Your task to perform on an android device: turn off priority inbox in the gmail app Image 0: 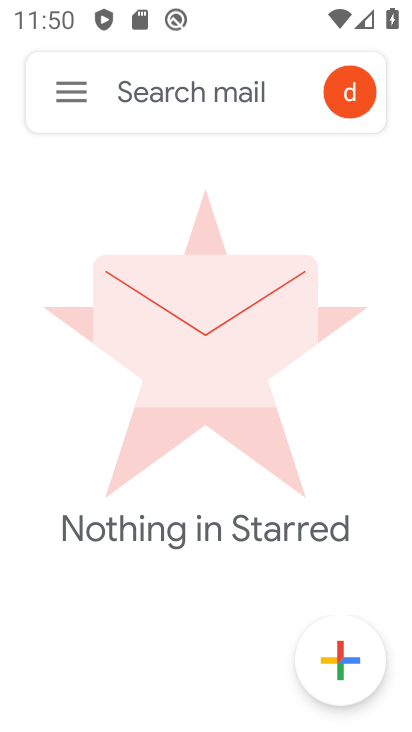
Step 0: press home button
Your task to perform on an android device: turn off priority inbox in the gmail app Image 1: 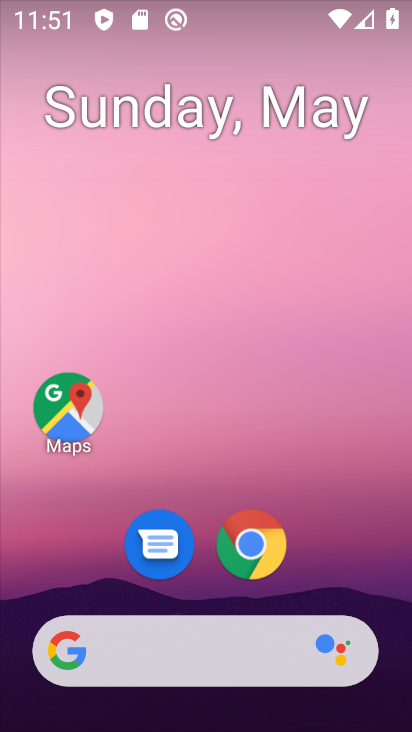
Step 1: drag from (290, 567) to (270, 35)
Your task to perform on an android device: turn off priority inbox in the gmail app Image 2: 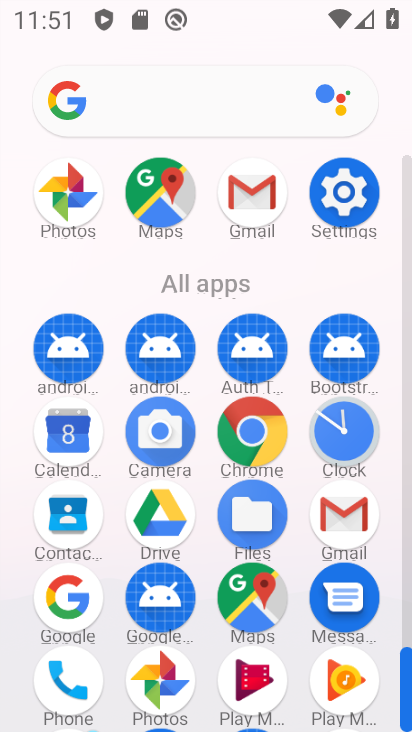
Step 2: click (328, 524)
Your task to perform on an android device: turn off priority inbox in the gmail app Image 3: 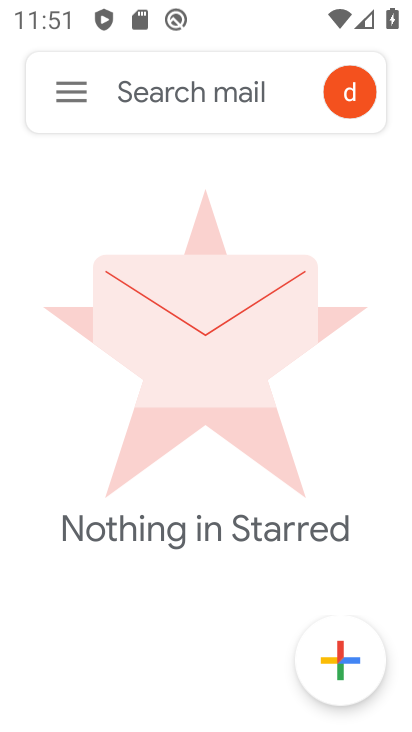
Step 3: click (66, 87)
Your task to perform on an android device: turn off priority inbox in the gmail app Image 4: 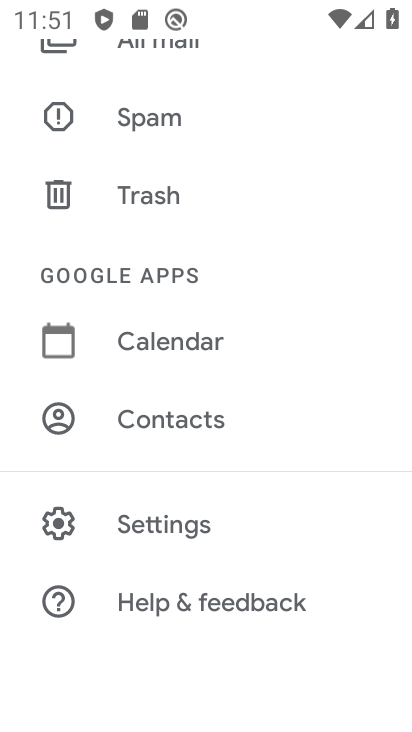
Step 4: drag from (83, 573) to (90, 328)
Your task to perform on an android device: turn off priority inbox in the gmail app Image 5: 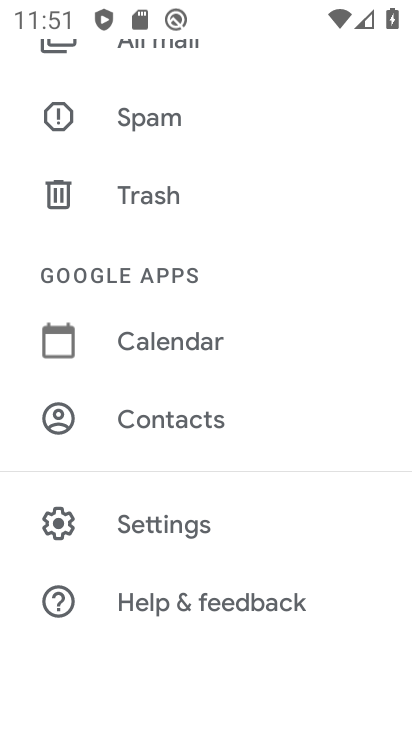
Step 5: click (206, 524)
Your task to perform on an android device: turn off priority inbox in the gmail app Image 6: 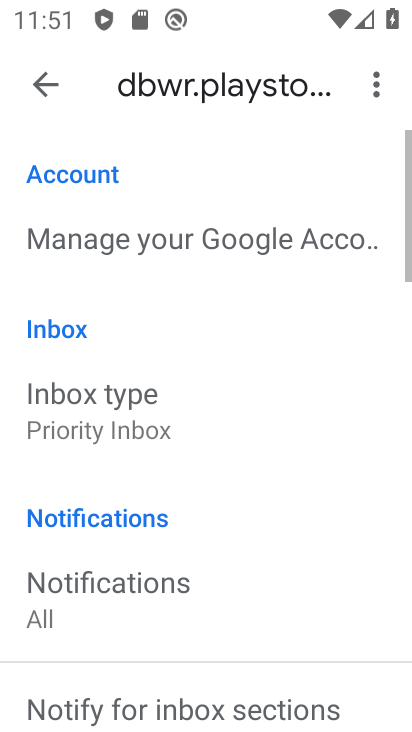
Step 6: click (98, 420)
Your task to perform on an android device: turn off priority inbox in the gmail app Image 7: 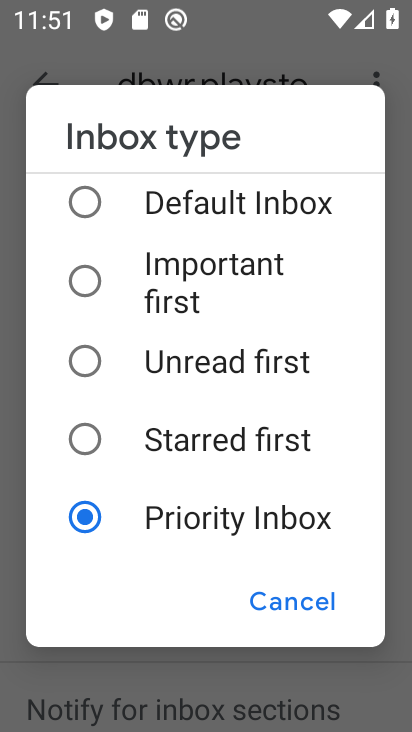
Step 7: click (86, 366)
Your task to perform on an android device: turn off priority inbox in the gmail app Image 8: 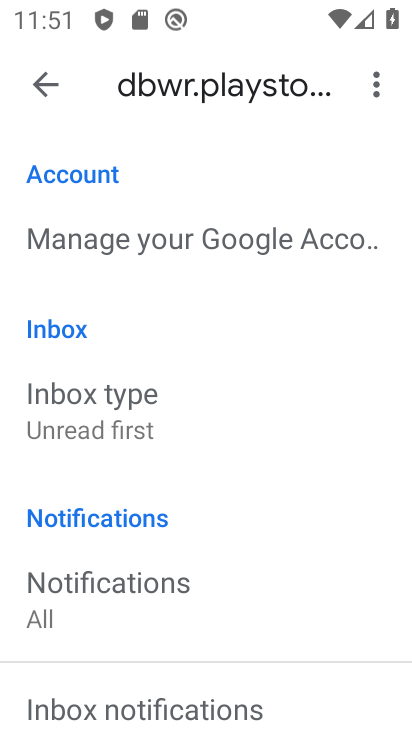
Step 8: task complete